Your task to perform on an android device: check out phone information Image 0: 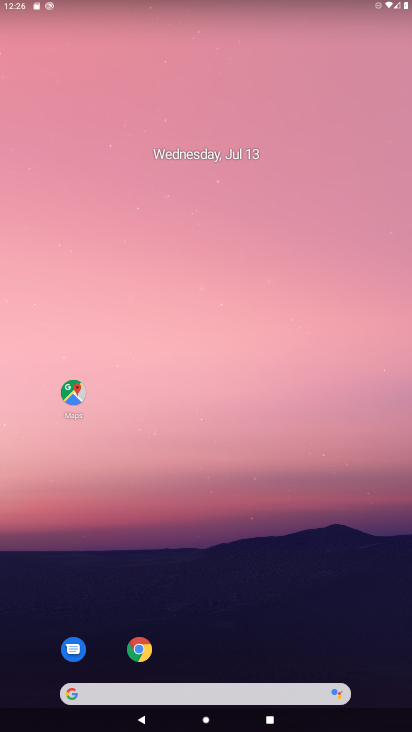
Step 0: drag from (327, 635) to (330, 170)
Your task to perform on an android device: check out phone information Image 1: 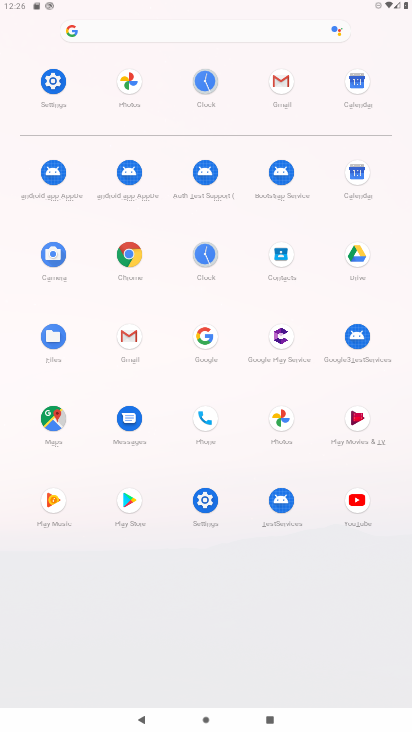
Step 1: click (202, 500)
Your task to perform on an android device: check out phone information Image 2: 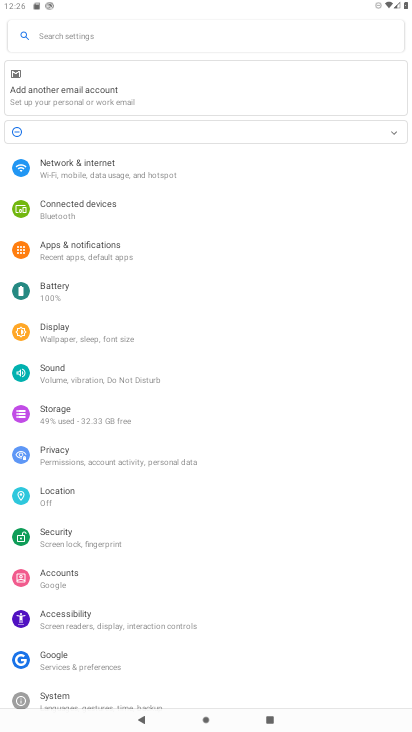
Step 2: drag from (203, 649) to (242, 208)
Your task to perform on an android device: check out phone information Image 3: 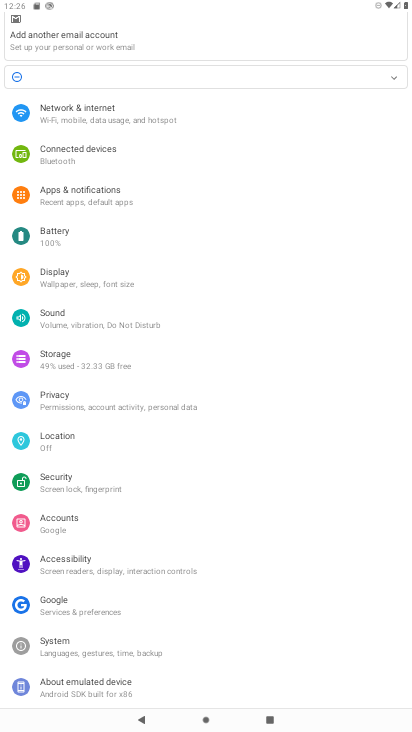
Step 3: click (74, 677)
Your task to perform on an android device: check out phone information Image 4: 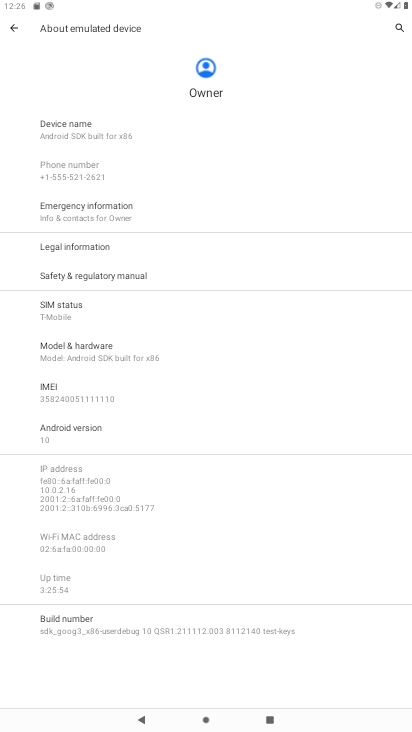
Step 4: task complete